Your task to perform on an android device: turn off smart reply in the gmail app Image 0: 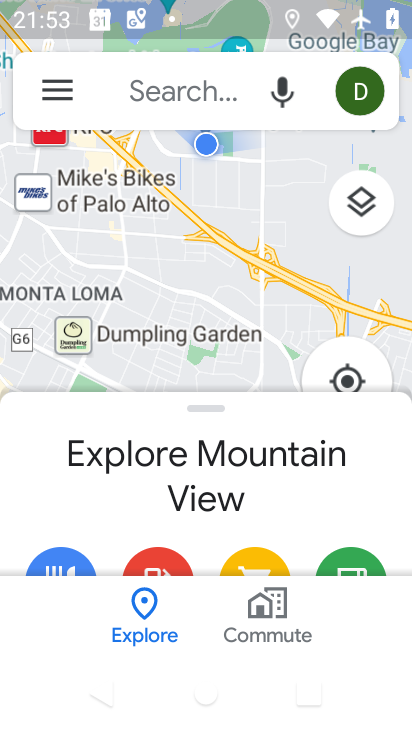
Step 0: press home button
Your task to perform on an android device: turn off smart reply in the gmail app Image 1: 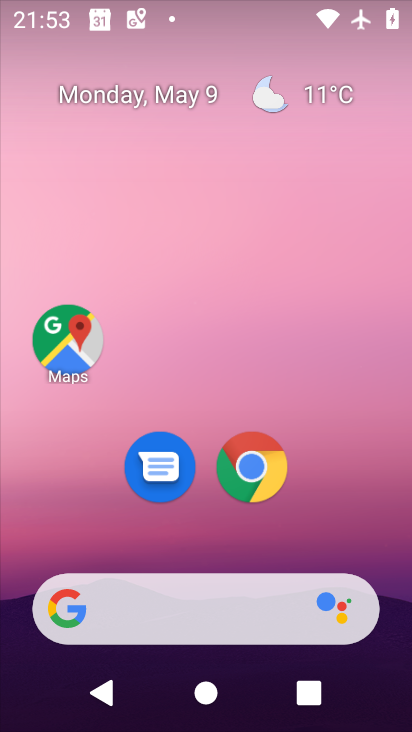
Step 1: drag from (313, 417) to (325, 299)
Your task to perform on an android device: turn off smart reply in the gmail app Image 2: 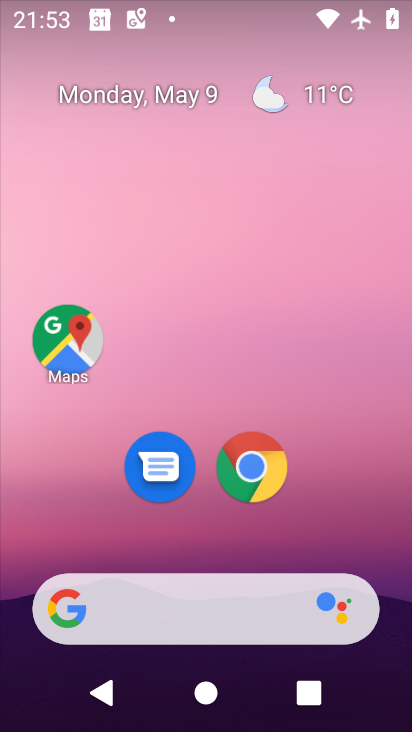
Step 2: drag from (321, 553) to (353, 253)
Your task to perform on an android device: turn off smart reply in the gmail app Image 3: 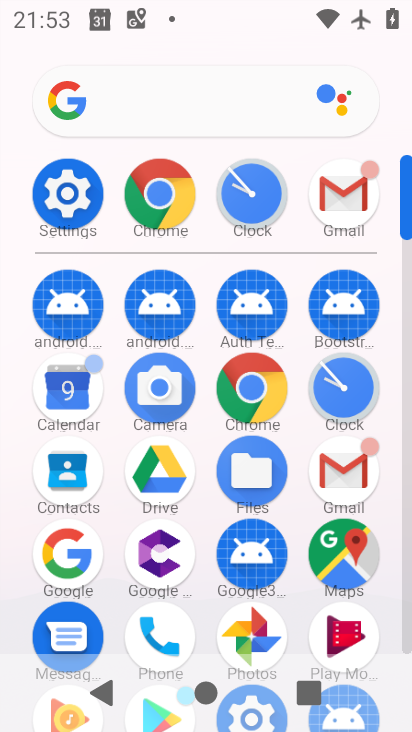
Step 3: click (342, 195)
Your task to perform on an android device: turn off smart reply in the gmail app Image 4: 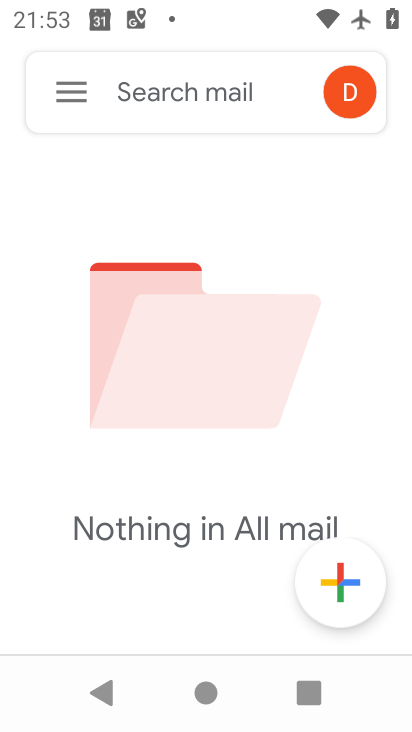
Step 4: click (75, 88)
Your task to perform on an android device: turn off smart reply in the gmail app Image 5: 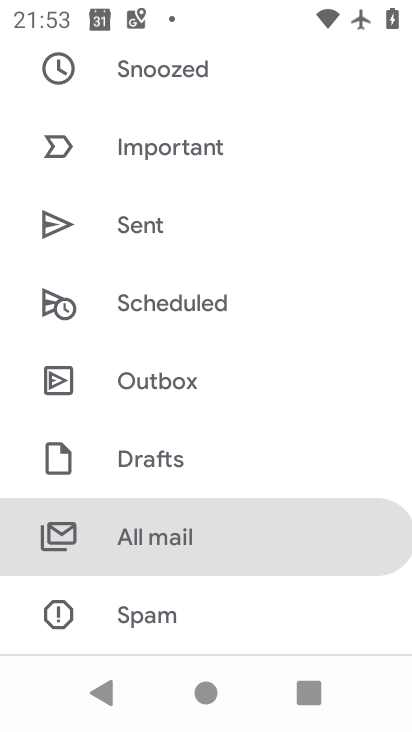
Step 5: drag from (254, 562) to (279, 134)
Your task to perform on an android device: turn off smart reply in the gmail app Image 6: 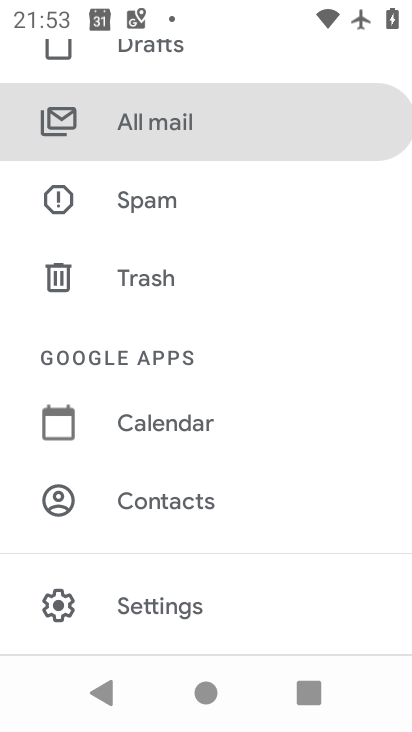
Step 6: click (163, 601)
Your task to perform on an android device: turn off smart reply in the gmail app Image 7: 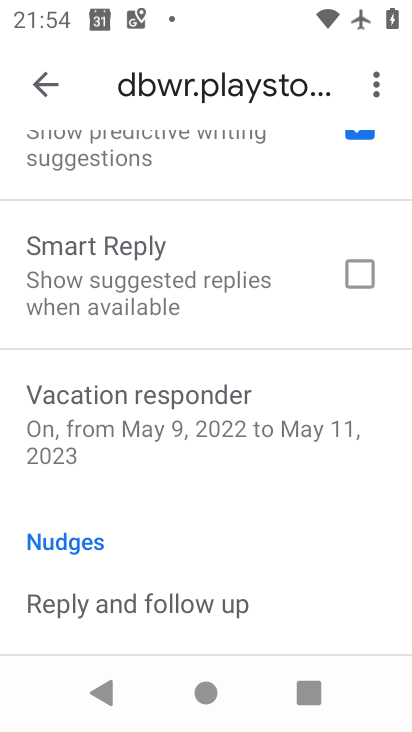
Step 7: task complete